Your task to perform on an android device: What is the recent news? Image 0: 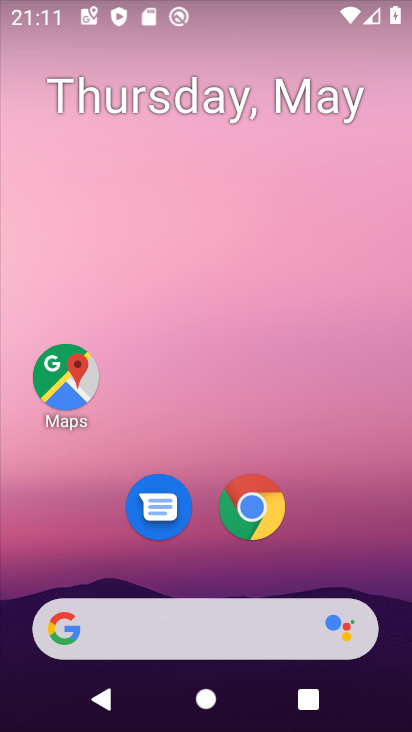
Step 0: drag from (261, 653) to (276, 261)
Your task to perform on an android device: What is the recent news? Image 1: 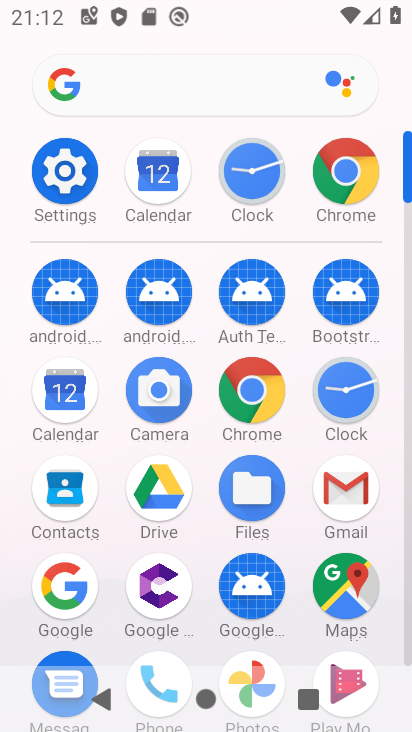
Step 1: click (135, 99)
Your task to perform on an android device: What is the recent news? Image 2: 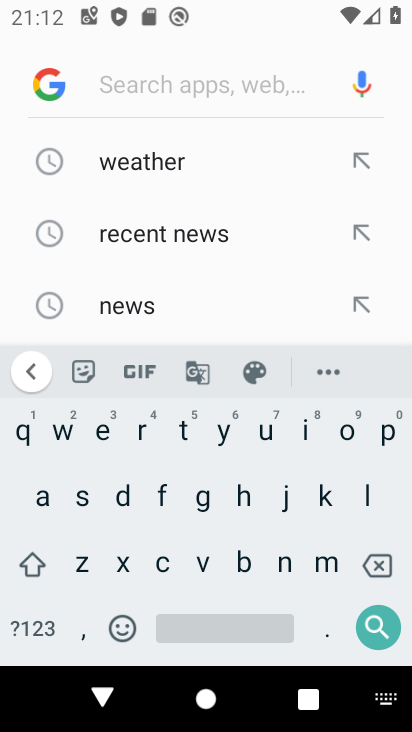
Step 2: click (135, 228)
Your task to perform on an android device: What is the recent news? Image 3: 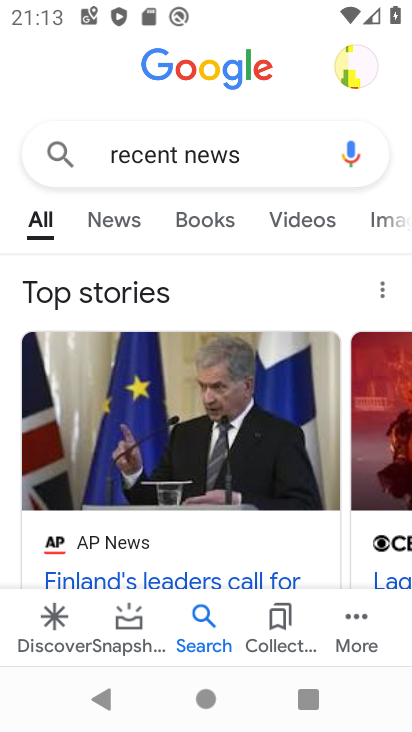
Step 3: task complete